Your task to perform on an android device: Open Youtube and go to "Your channel" Image 0: 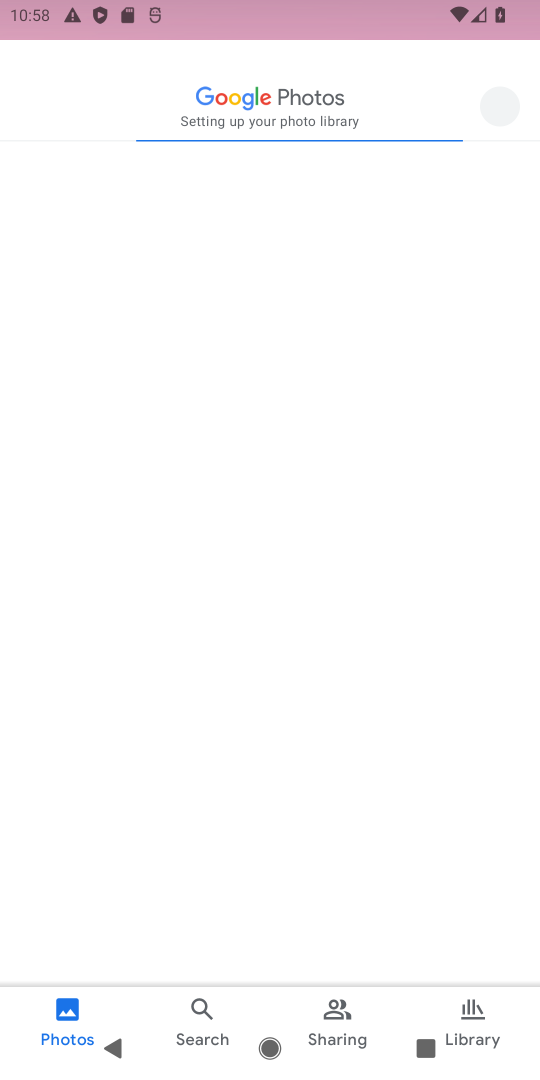
Step 0: press home button
Your task to perform on an android device: Open Youtube and go to "Your channel" Image 1: 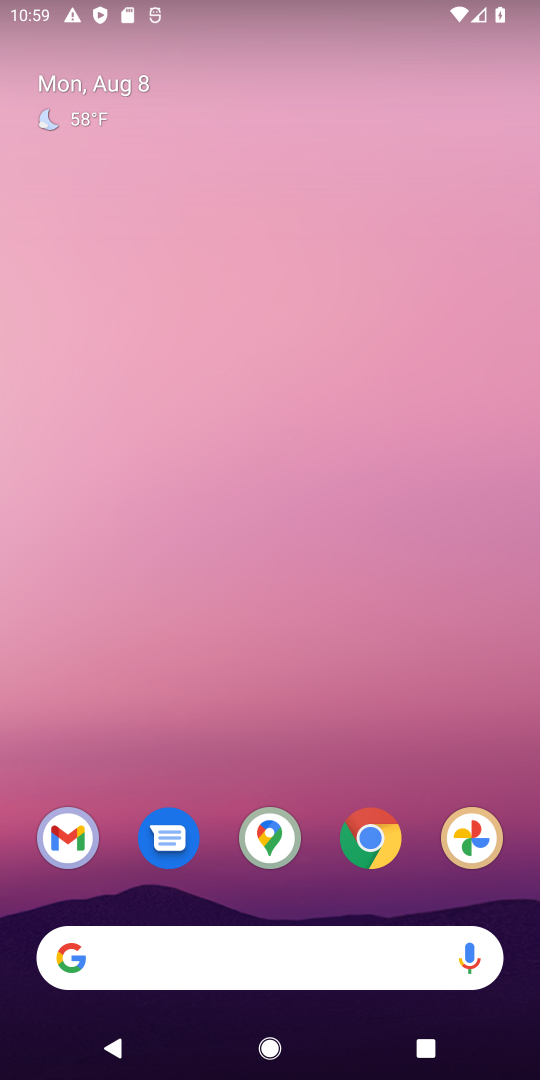
Step 1: drag from (318, 897) to (430, 216)
Your task to perform on an android device: Open Youtube and go to "Your channel" Image 2: 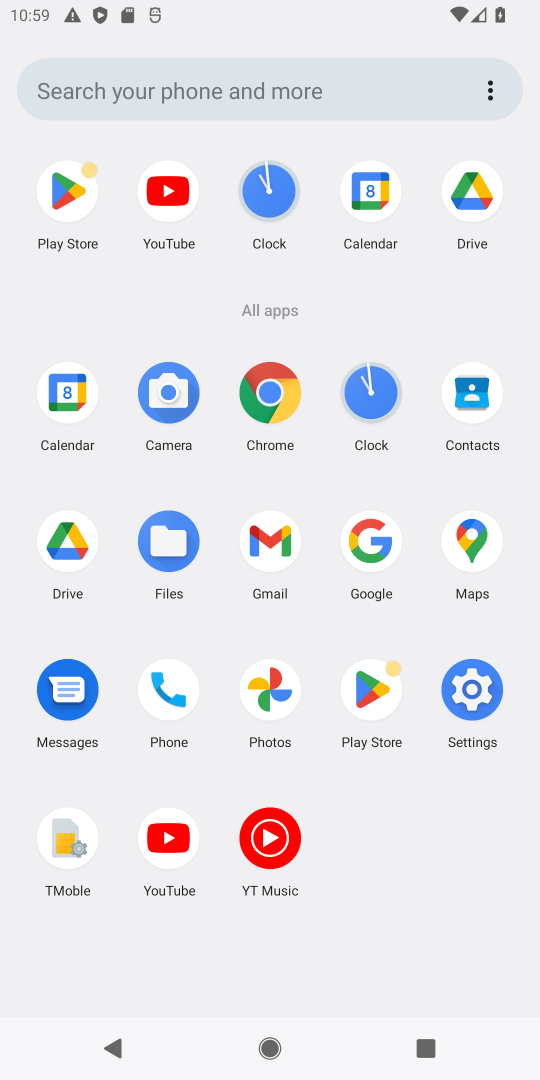
Step 2: click (180, 851)
Your task to perform on an android device: Open Youtube and go to "Your channel" Image 3: 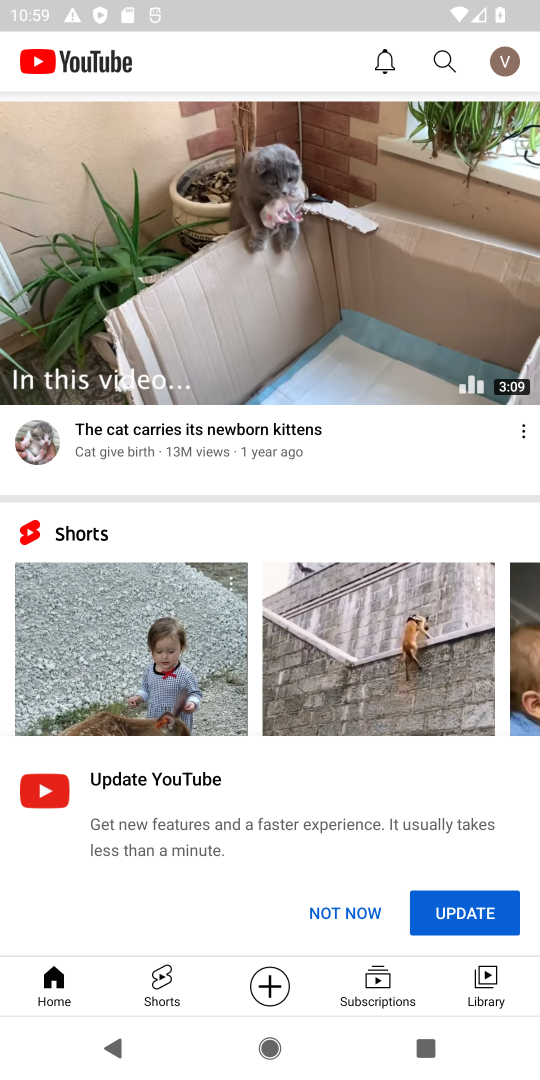
Step 3: click (513, 64)
Your task to perform on an android device: Open Youtube and go to "Your channel" Image 4: 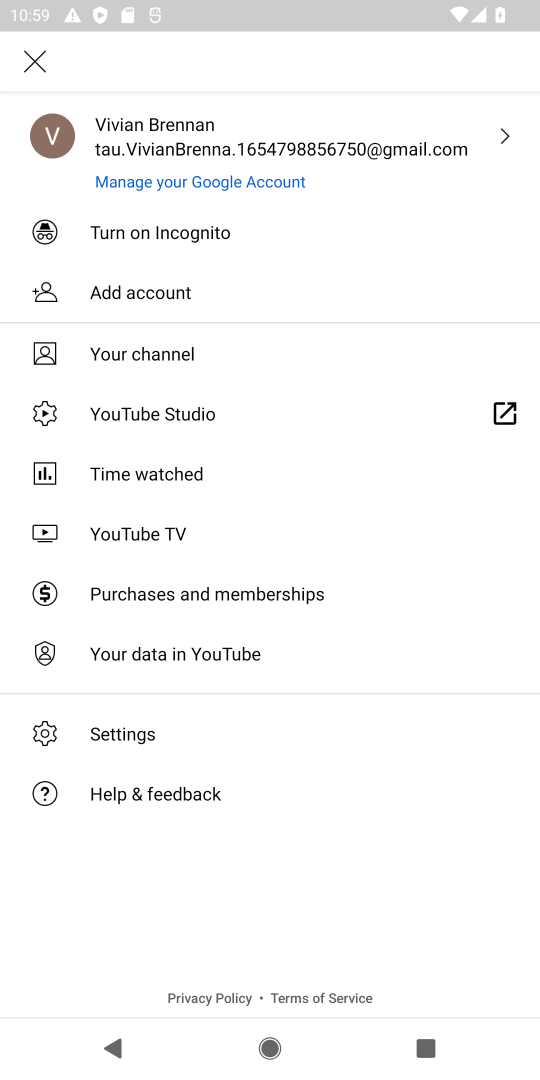
Step 4: click (151, 354)
Your task to perform on an android device: Open Youtube and go to "Your channel" Image 5: 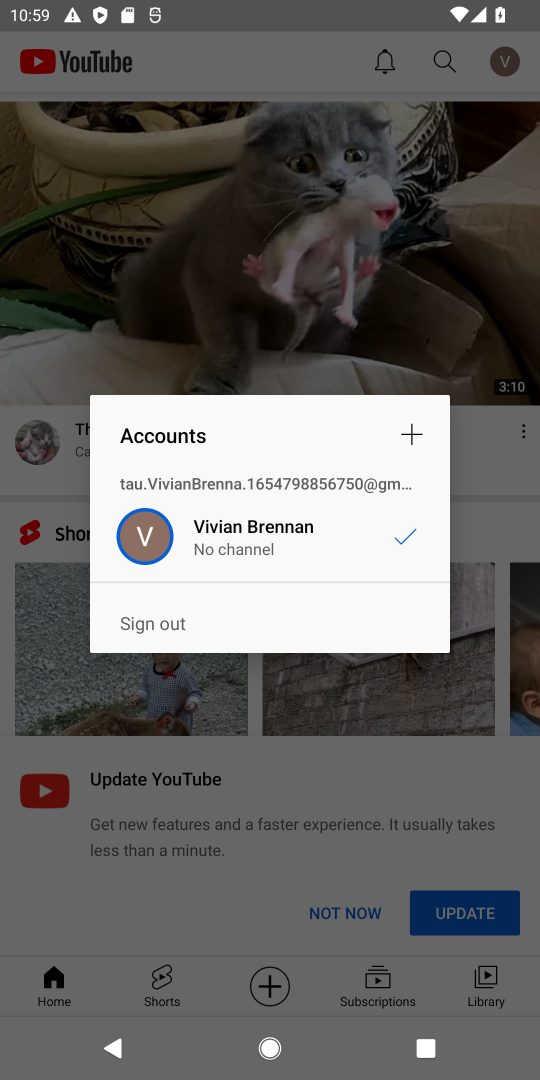
Step 5: task complete